Your task to perform on an android device: Search for sushi restaurants on Maps Image 0: 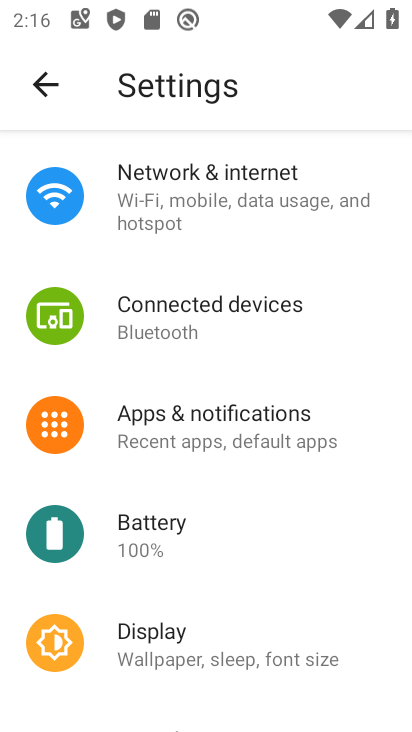
Step 0: press home button
Your task to perform on an android device: Search for sushi restaurants on Maps Image 1: 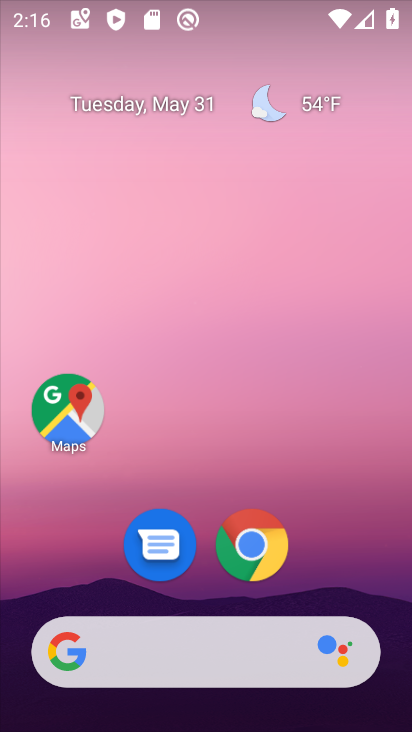
Step 1: click (76, 401)
Your task to perform on an android device: Search for sushi restaurants on Maps Image 2: 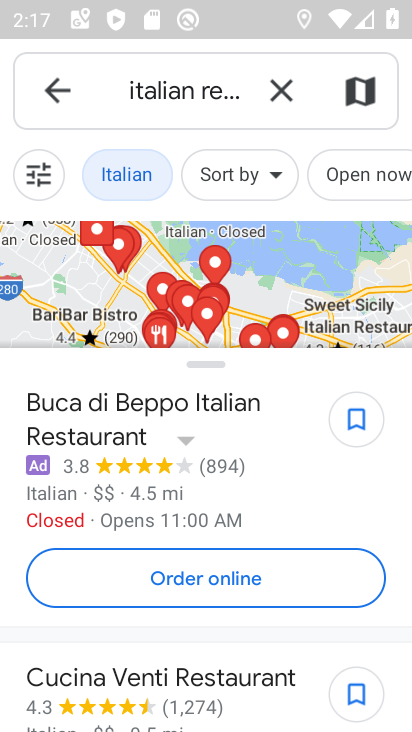
Step 2: click (278, 74)
Your task to perform on an android device: Search for sushi restaurants on Maps Image 3: 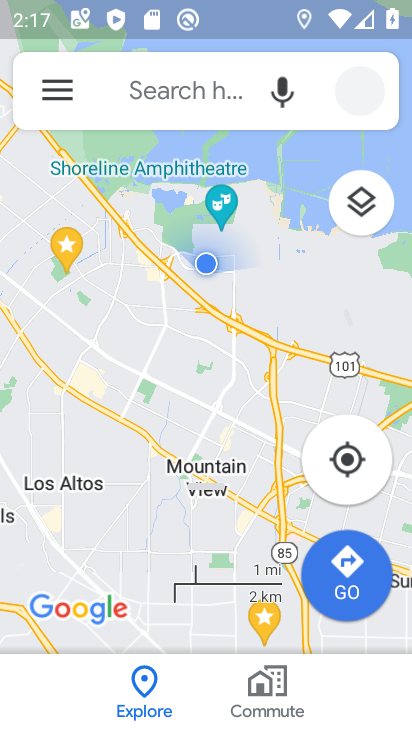
Step 3: click (216, 86)
Your task to perform on an android device: Search for sushi restaurants on Maps Image 4: 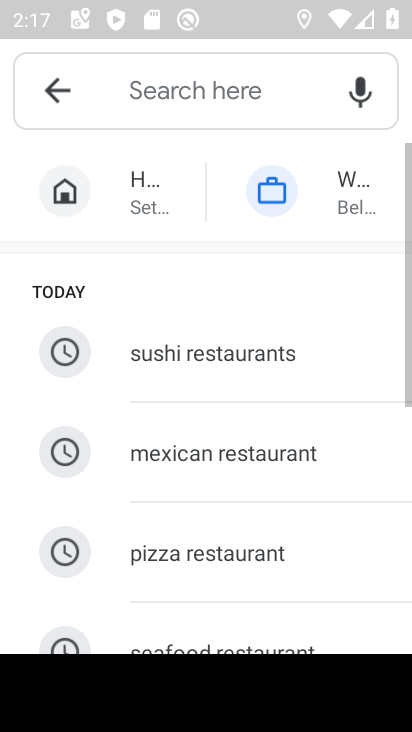
Step 4: click (224, 350)
Your task to perform on an android device: Search for sushi restaurants on Maps Image 5: 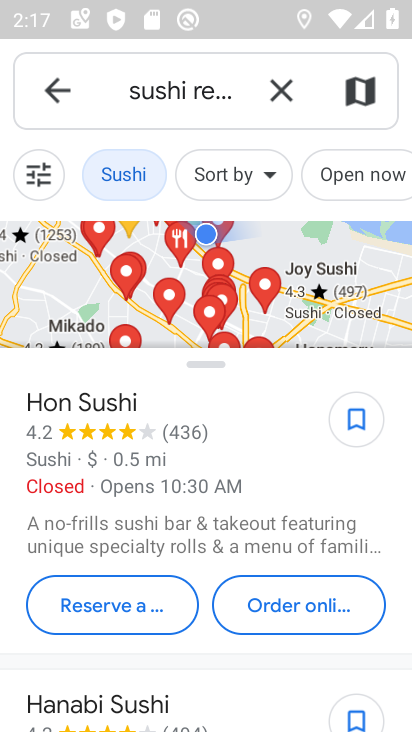
Step 5: task complete